Your task to perform on an android device: Open CNN.com Image 0: 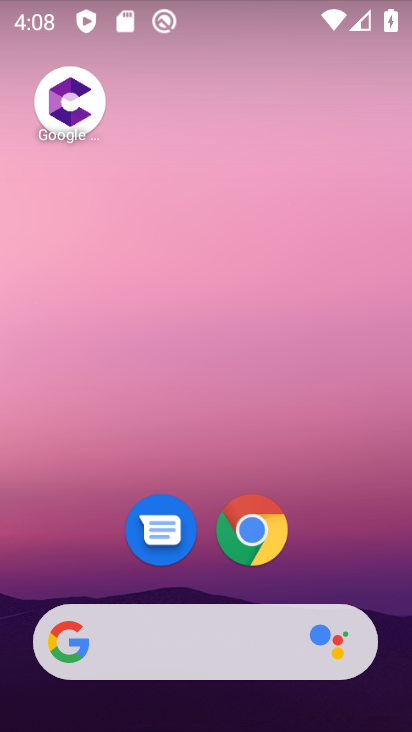
Step 0: click (286, 522)
Your task to perform on an android device: Open CNN.com Image 1: 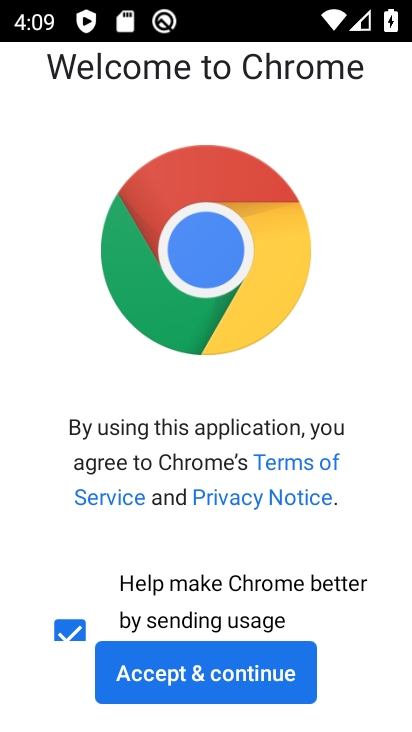
Step 1: click (207, 688)
Your task to perform on an android device: Open CNN.com Image 2: 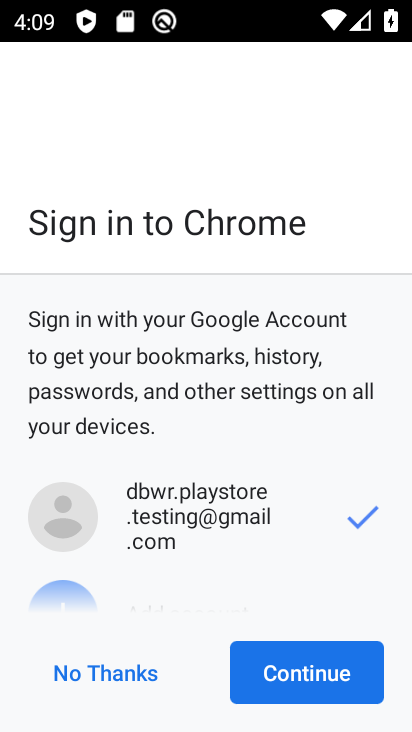
Step 2: click (364, 699)
Your task to perform on an android device: Open CNN.com Image 3: 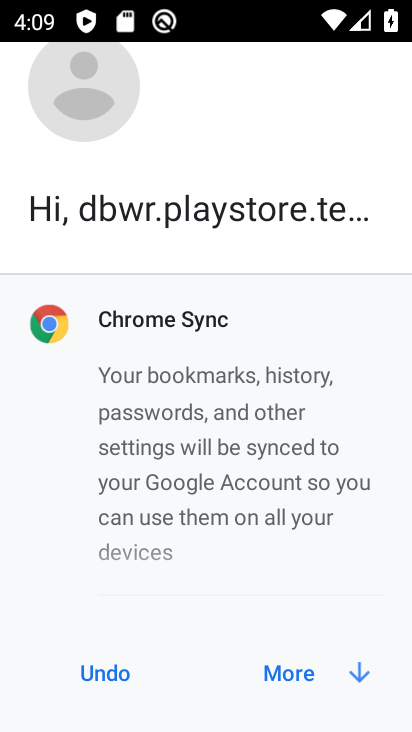
Step 3: click (296, 692)
Your task to perform on an android device: Open CNN.com Image 4: 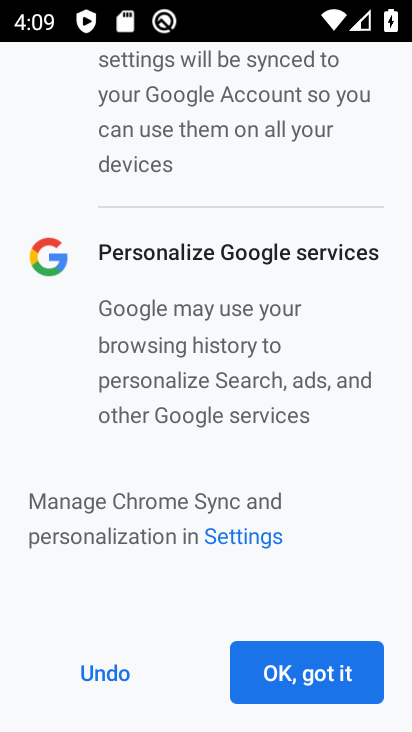
Step 4: click (303, 682)
Your task to perform on an android device: Open CNN.com Image 5: 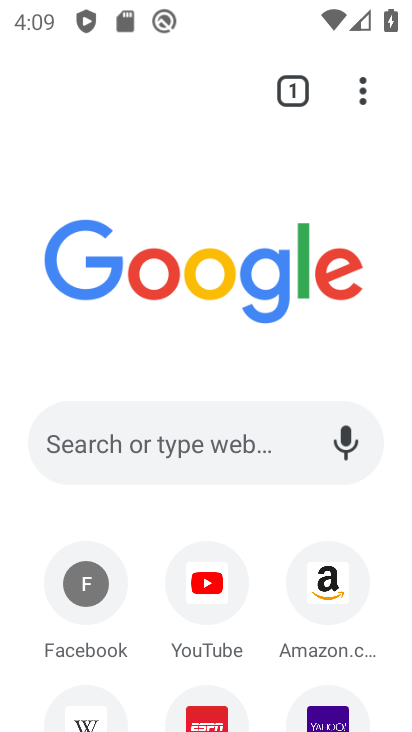
Step 5: click (172, 439)
Your task to perform on an android device: Open CNN.com Image 6: 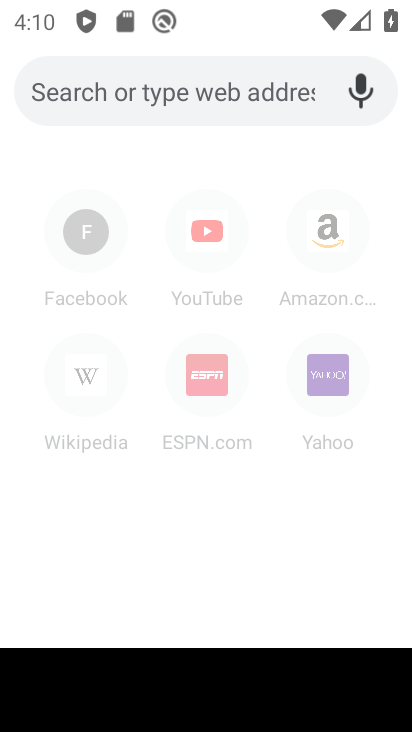
Step 6: type "cnn.com"
Your task to perform on an android device: Open CNN.com Image 7: 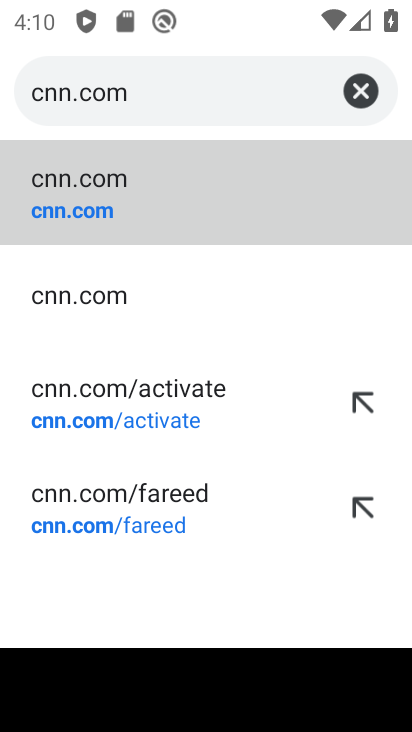
Step 7: click (89, 223)
Your task to perform on an android device: Open CNN.com Image 8: 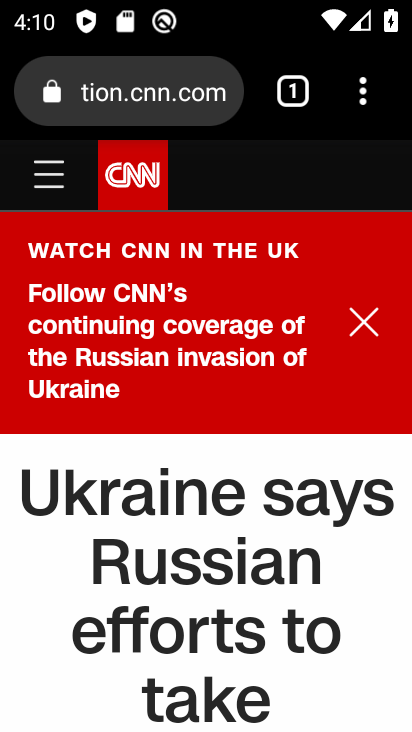
Step 8: task complete